Your task to perform on an android device: Open Android settings Image 0: 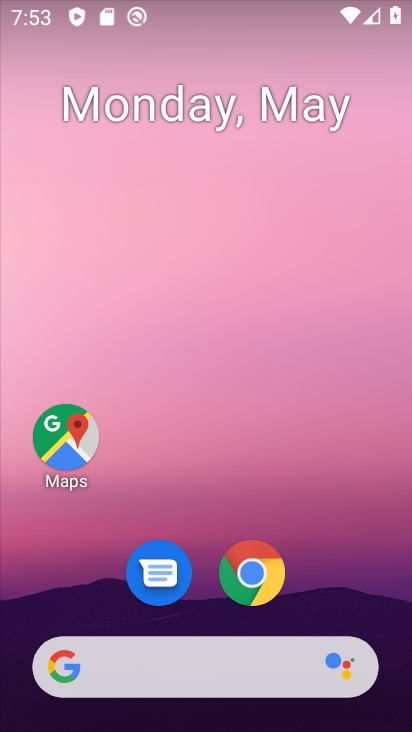
Step 0: drag from (68, 628) to (328, 4)
Your task to perform on an android device: Open Android settings Image 1: 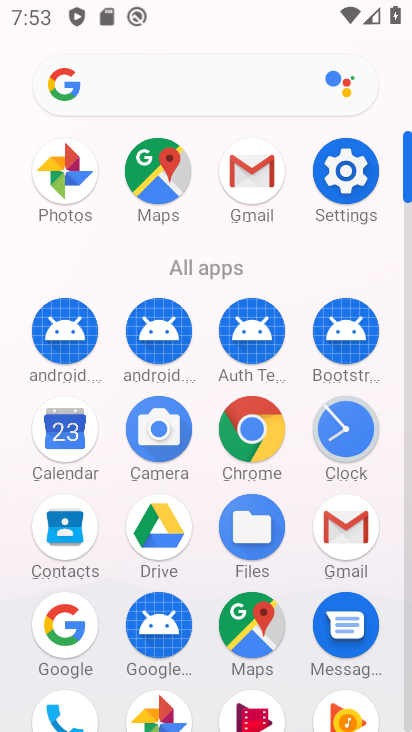
Step 1: drag from (218, 639) to (320, 240)
Your task to perform on an android device: Open Android settings Image 2: 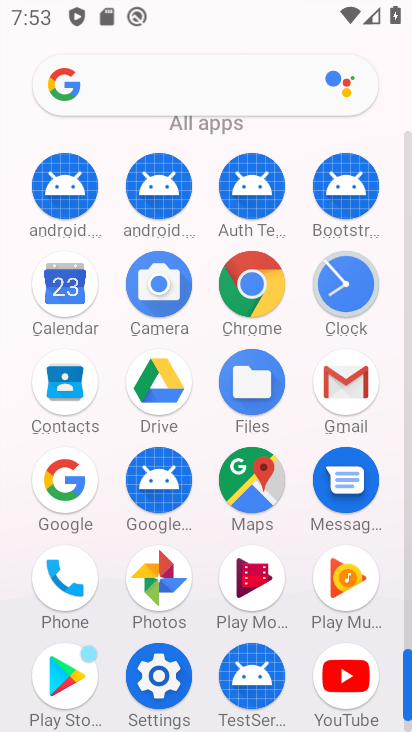
Step 2: click (170, 683)
Your task to perform on an android device: Open Android settings Image 3: 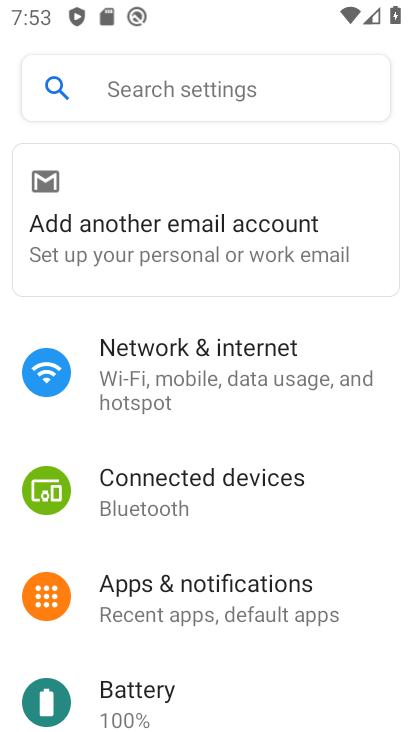
Step 3: task complete